Your task to perform on an android device: Go to Amazon Image 0: 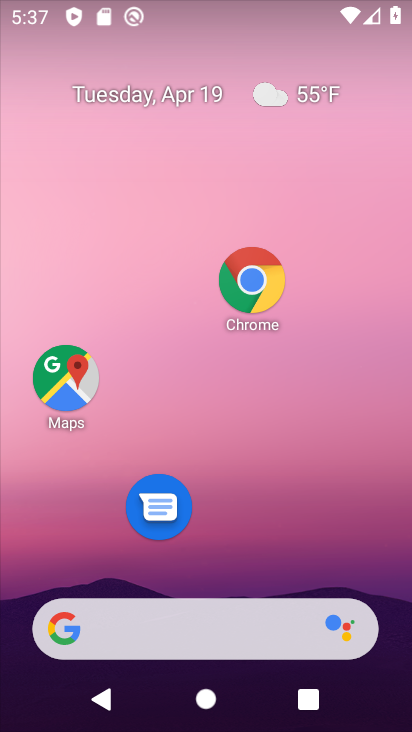
Step 0: click (252, 282)
Your task to perform on an android device: Go to Amazon Image 1: 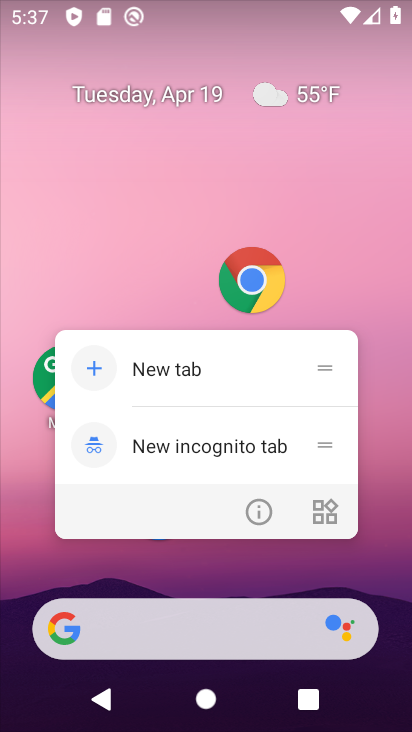
Step 1: click (261, 278)
Your task to perform on an android device: Go to Amazon Image 2: 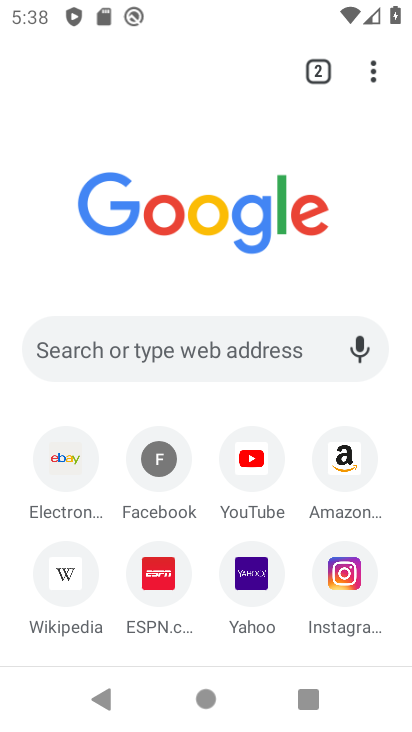
Step 2: click (336, 457)
Your task to perform on an android device: Go to Amazon Image 3: 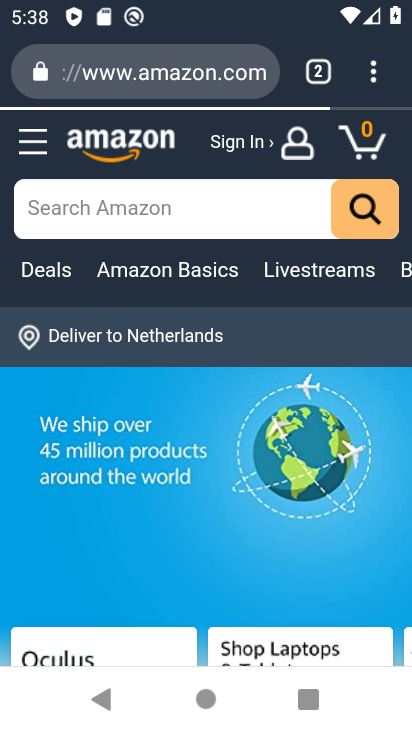
Step 3: task complete